Your task to perform on an android device: Is it going to rain today? Image 0: 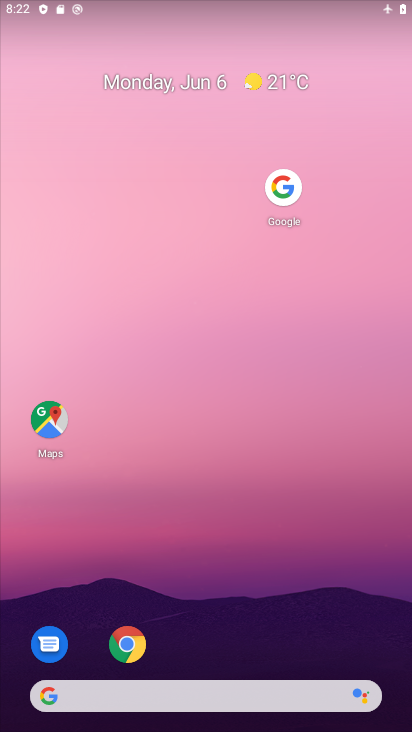
Step 0: click (206, 687)
Your task to perform on an android device: Is it going to rain today? Image 1: 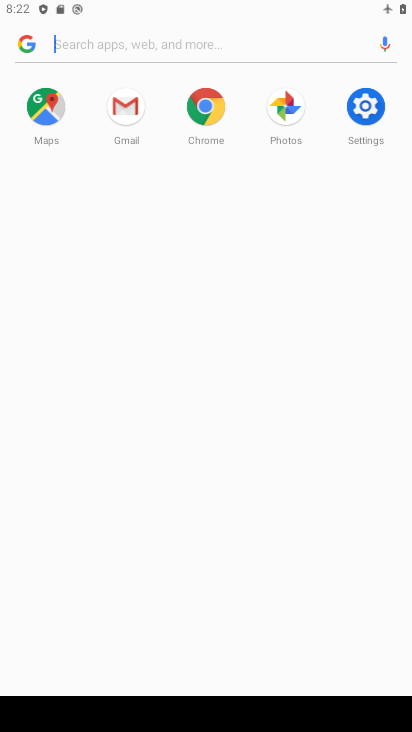
Step 1: task complete